Your task to perform on an android device: open device folders in google photos Image 0: 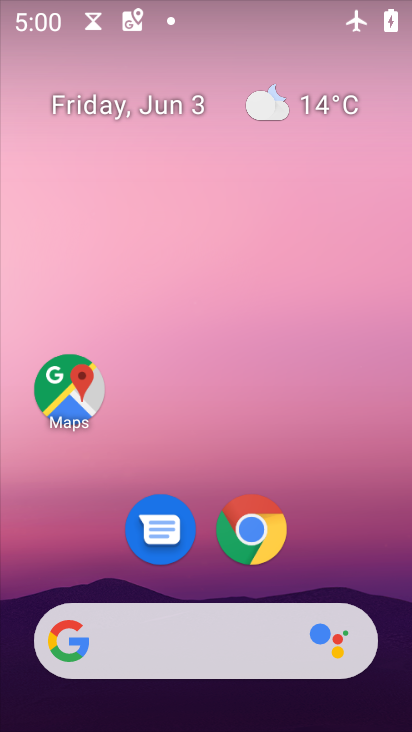
Step 0: drag from (376, 502) to (369, 0)
Your task to perform on an android device: open device folders in google photos Image 1: 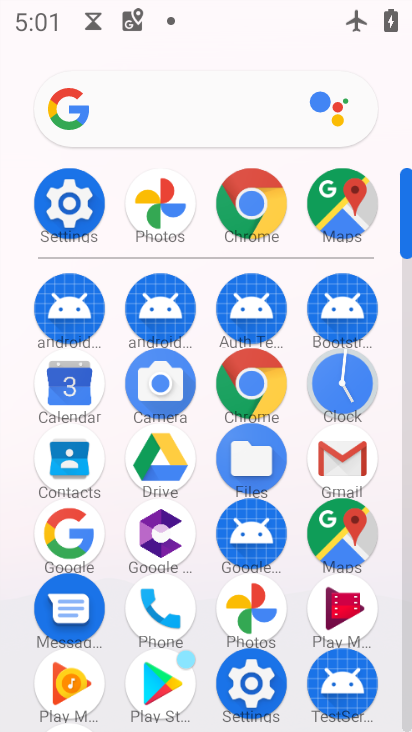
Step 1: click (248, 598)
Your task to perform on an android device: open device folders in google photos Image 2: 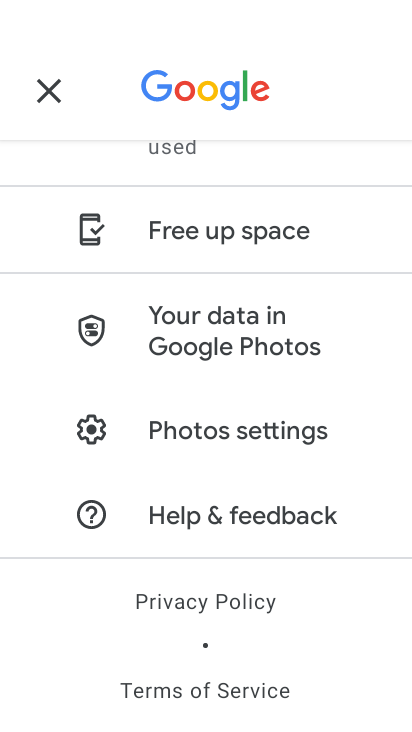
Step 2: task complete